Your task to perform on an android device: set the stopwatch Image 0: 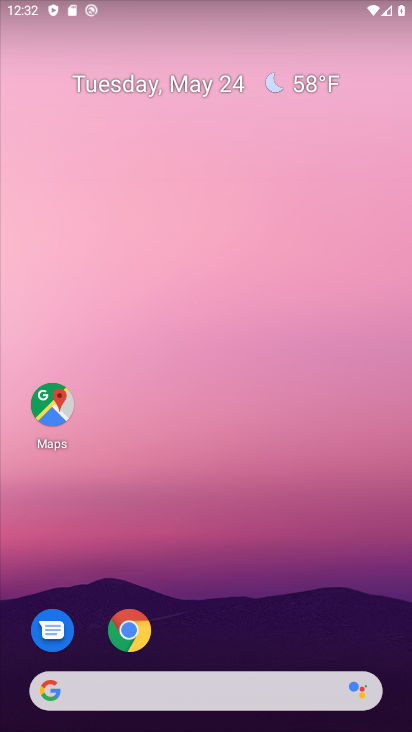
Step 0: drag from (303, 610) to (211, 87)
Your task to perform on an android device: set the stopwatch Image 1: 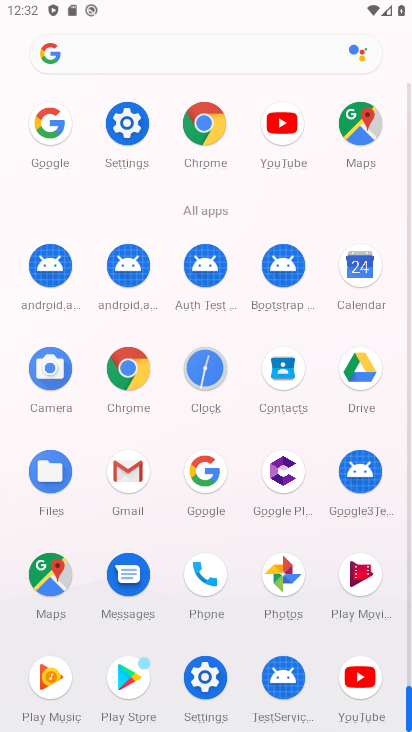
Step 1: click (207, 367)
Your task to perform on an android device: set the stopwatch Image 2: 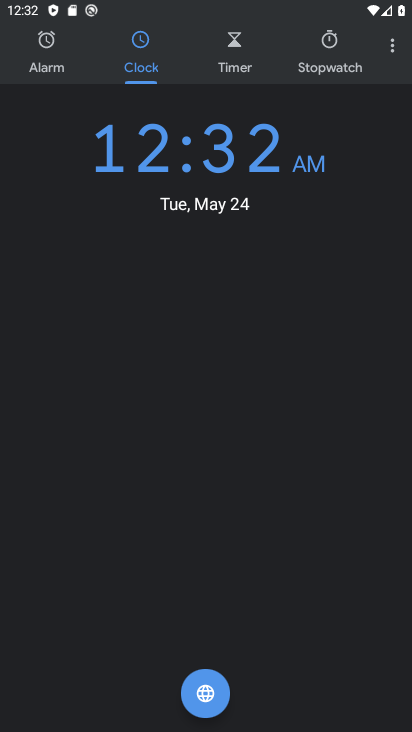
Step 2: click (329, 44)
Your task to perform on an android device: set the stopwatch Image 3: 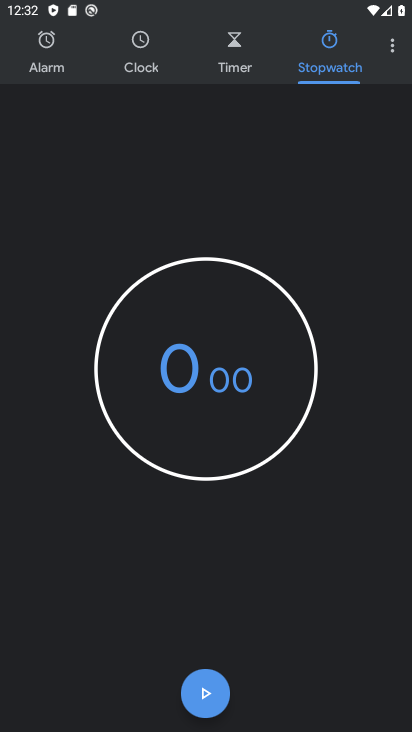
Step 3: click (206, 690)
Your task to perform on an android device: set the stopwatch Image 4: 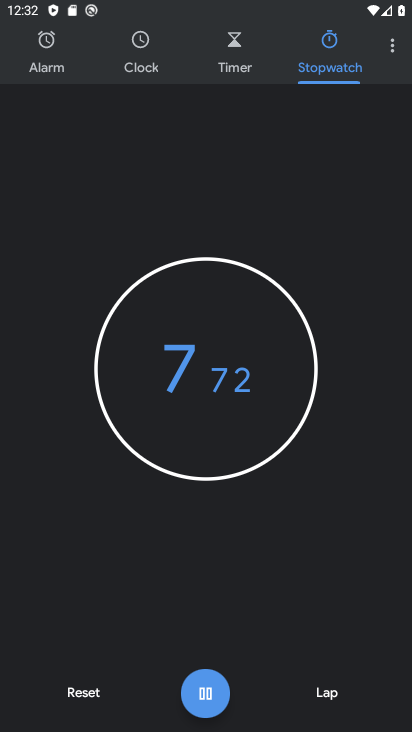
Step 4: click (203, 684)
Your task to perform on an android device: set the stopwatch Image 5: 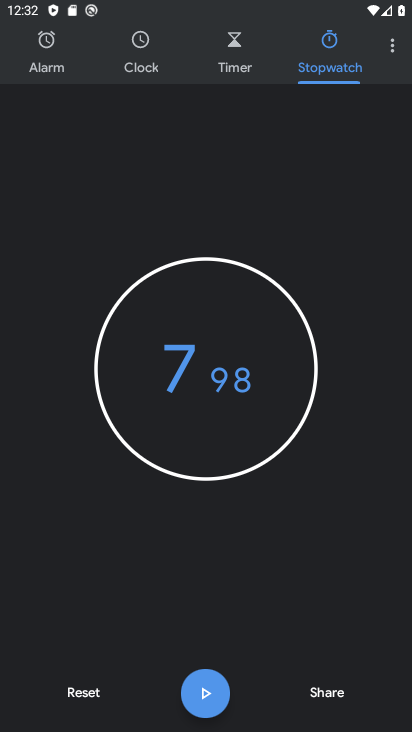
Step 5: task complete